Your task to perform on an android device: turn on improve location accuracy Image 0: 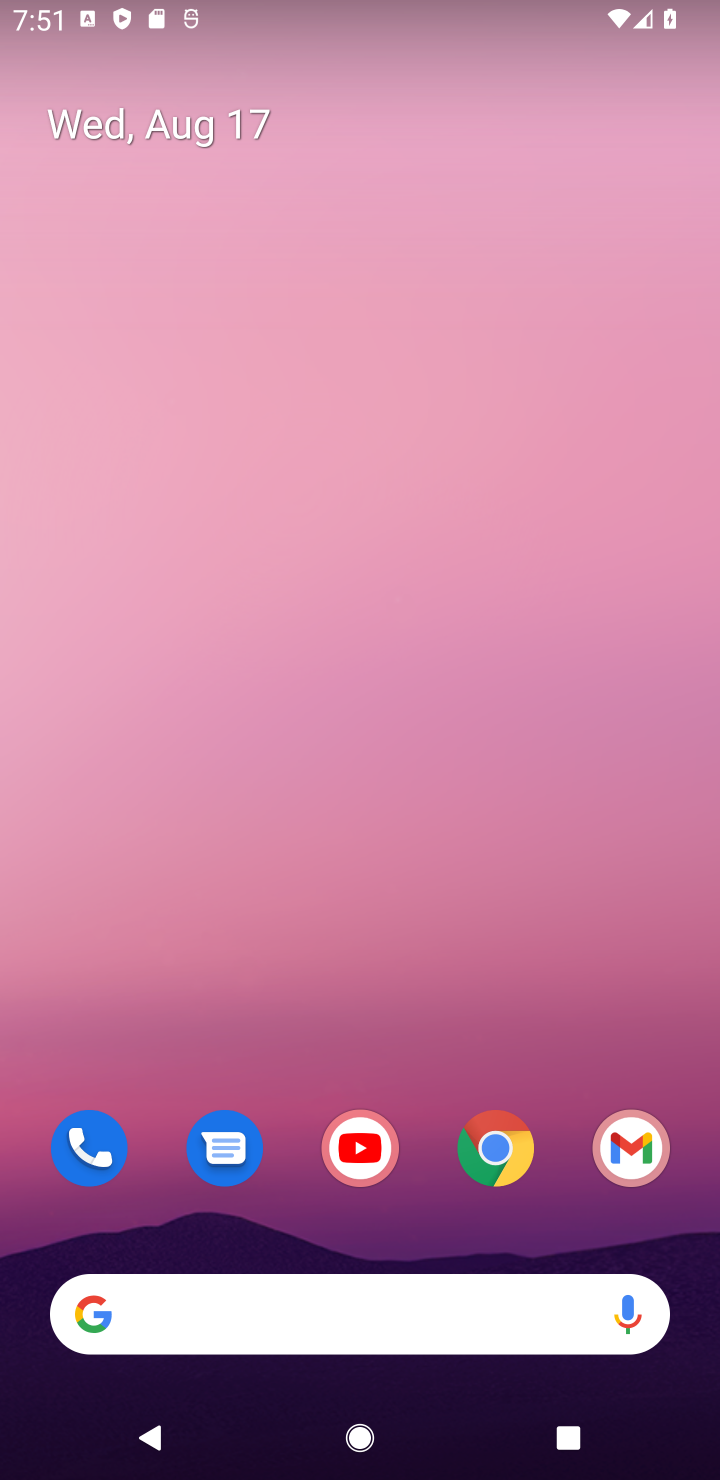
Step 0: drag from (540, 1034) to (532, 314)
Your task to perform on an android device: turn on improve location accuracy Image 1: 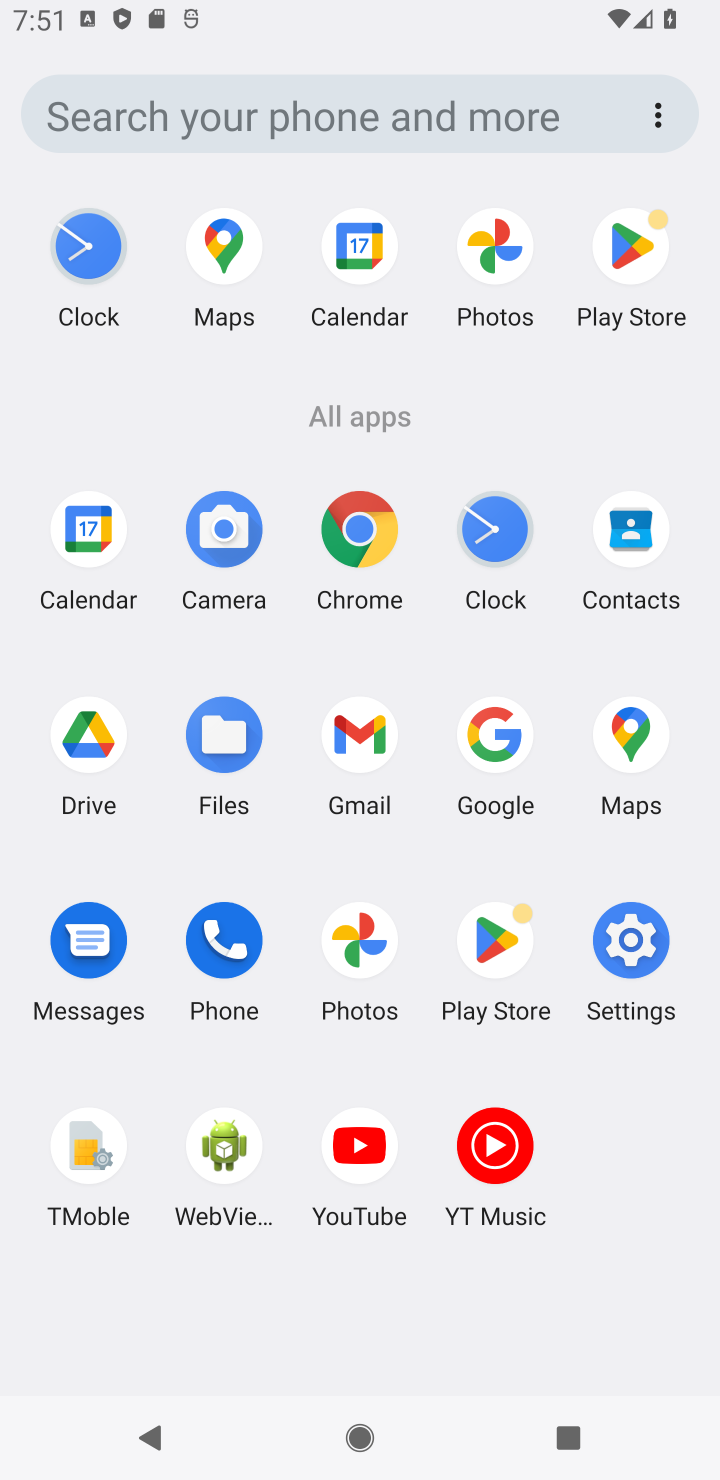
Step 1: click (629, 941)
Your task to perform on an android device: turn on improve location accuracy Image 2: 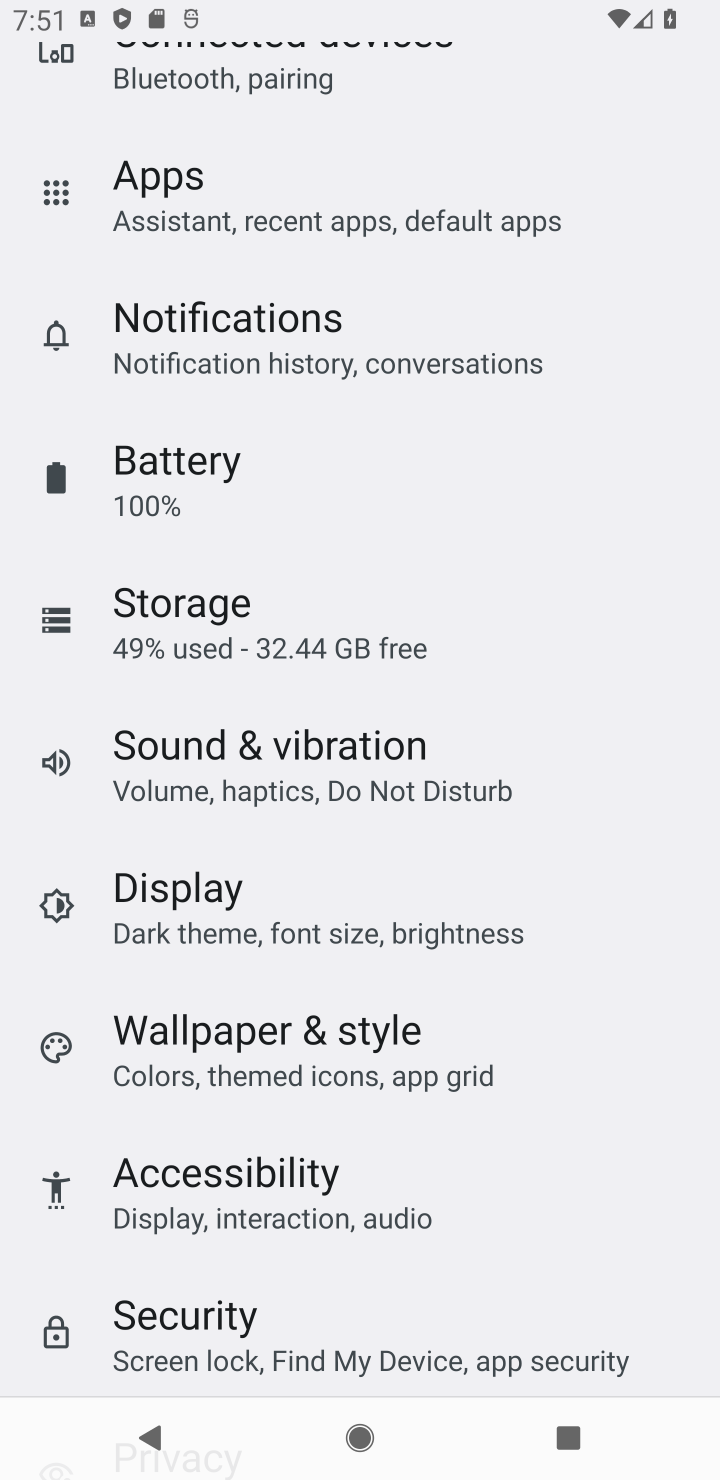
Step 2: drag from (581, 1202) to (548, 476)
Your task to perform on an android device: turn on improve location accuracy Image 3: 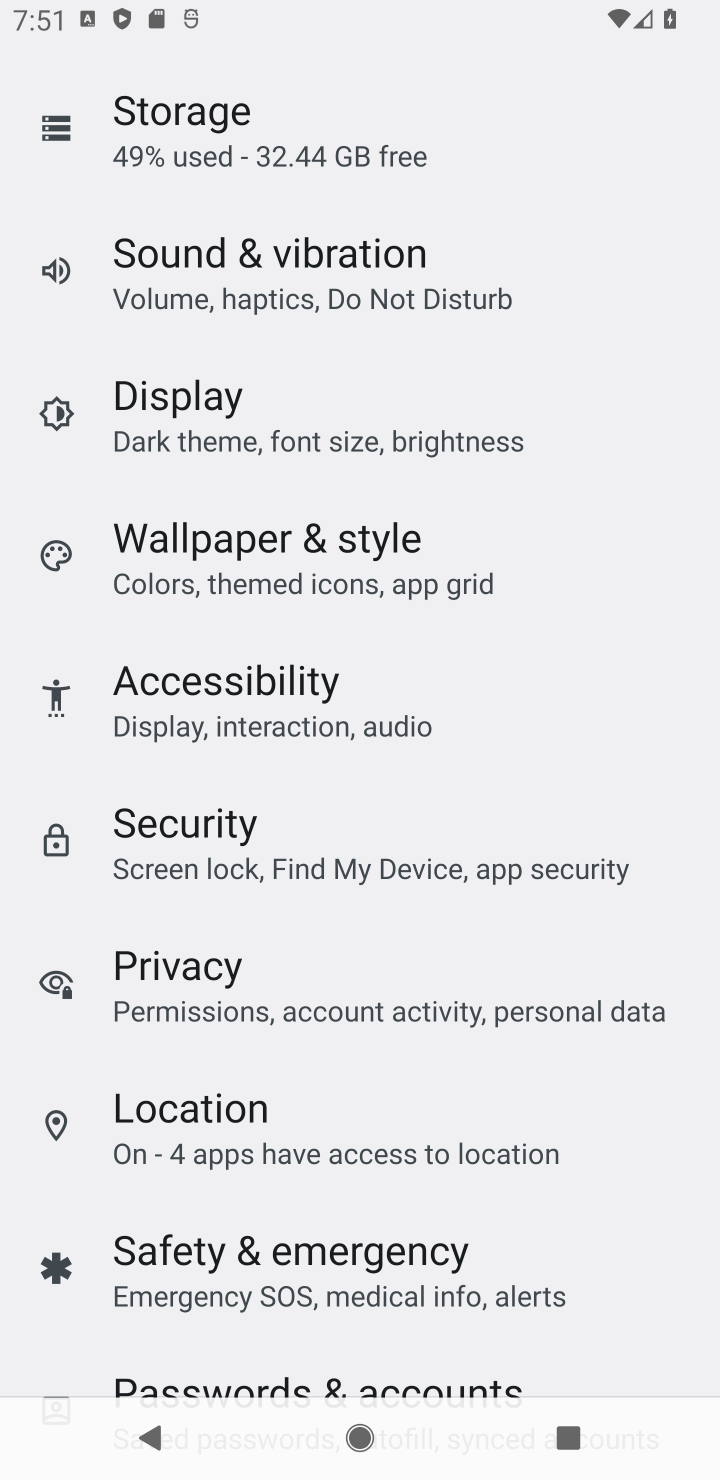
Step 3: click (179, 1116)
Your task to perform on an android device: turn on improve location accuracy Image 4: 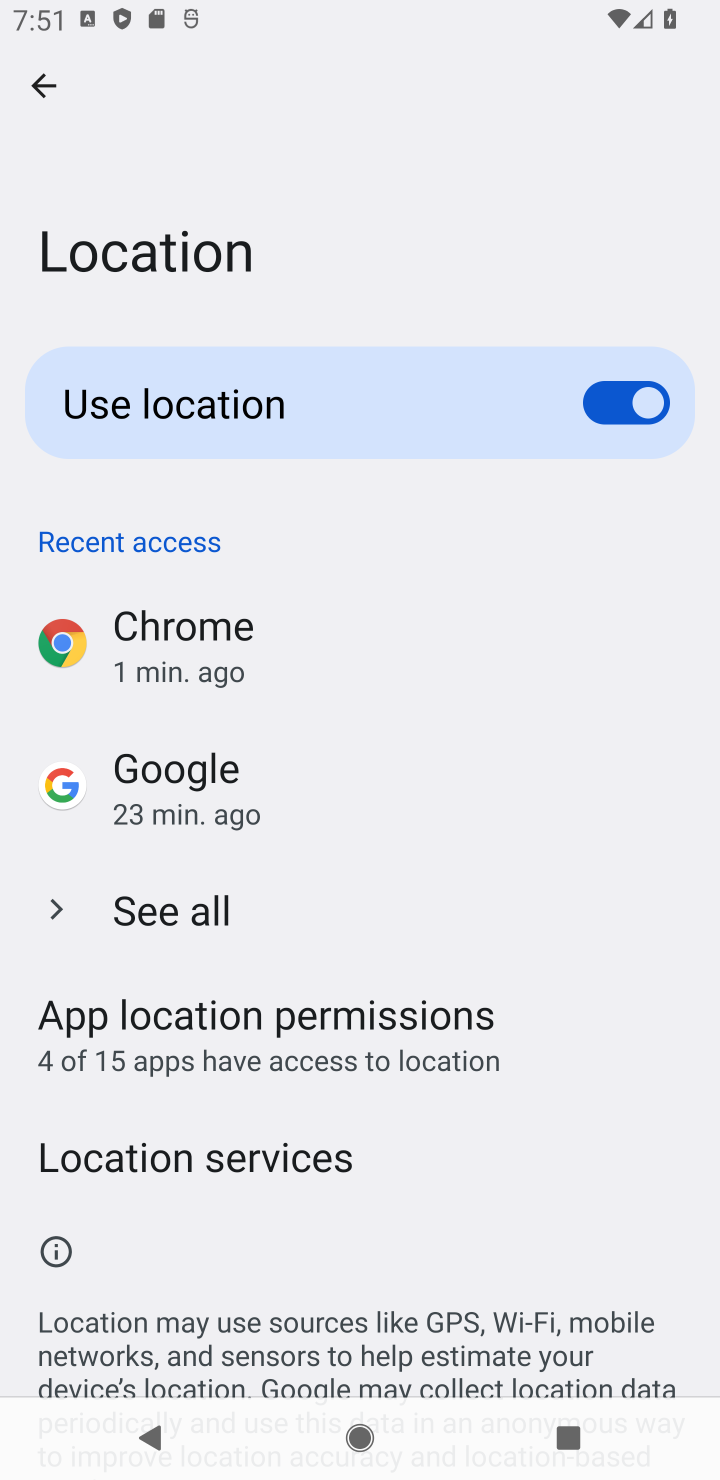
Step 4: drag from (510, 1174) to (500, 588)
Your task to perform on an android device: turn on improve location accuracy Image 5: 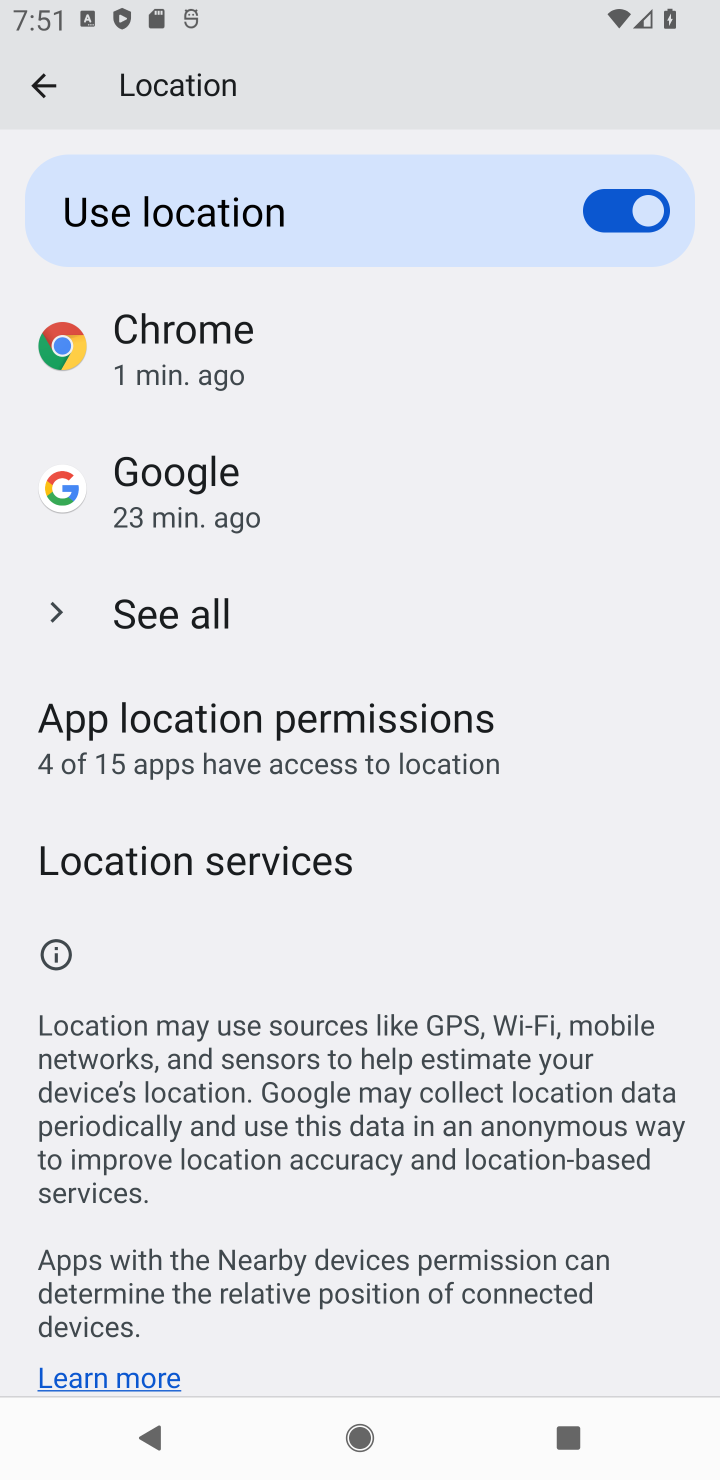
Step 5: click (248, 865)
Your task to perform on an android device: turn on improve location accuracy Image 6: 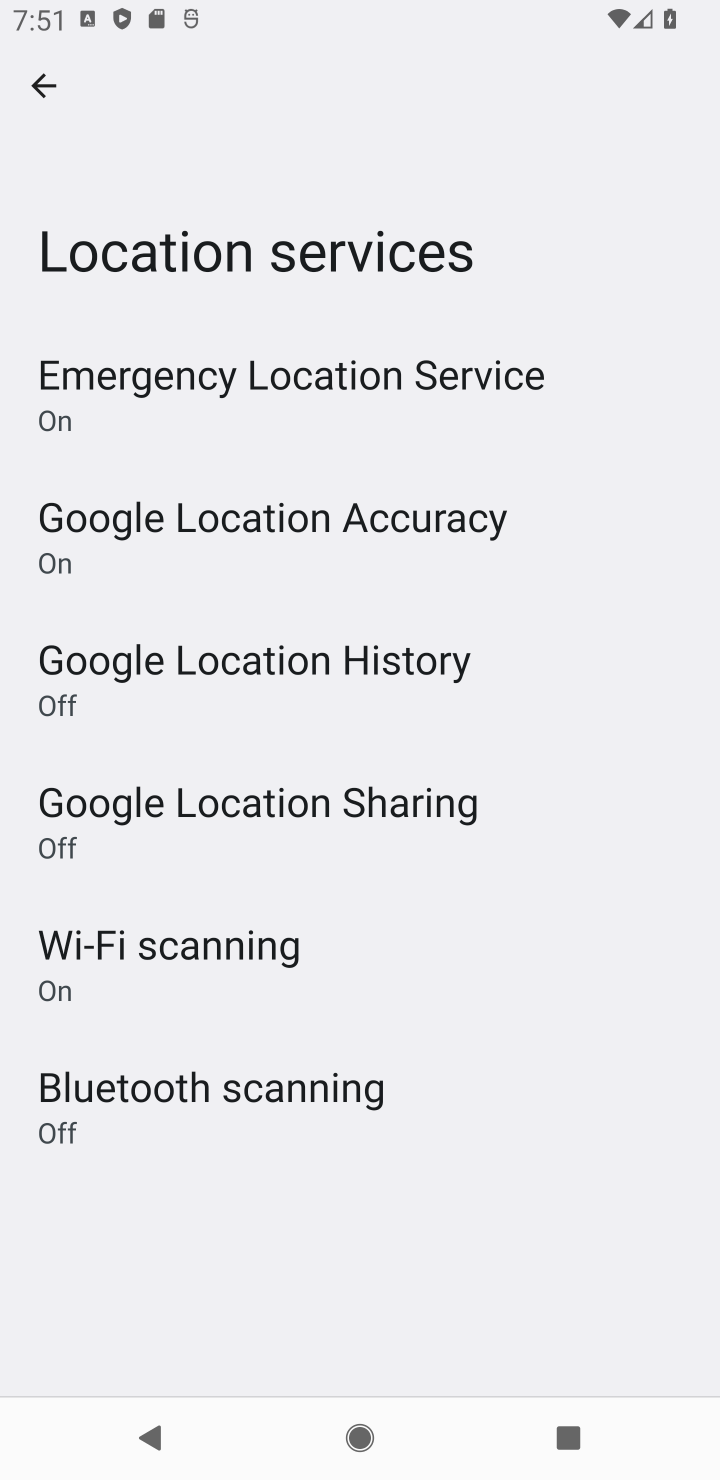
Step 6: click (315, 526)
Your task to perform on an android device: turn on improve location accuracy Image 7: 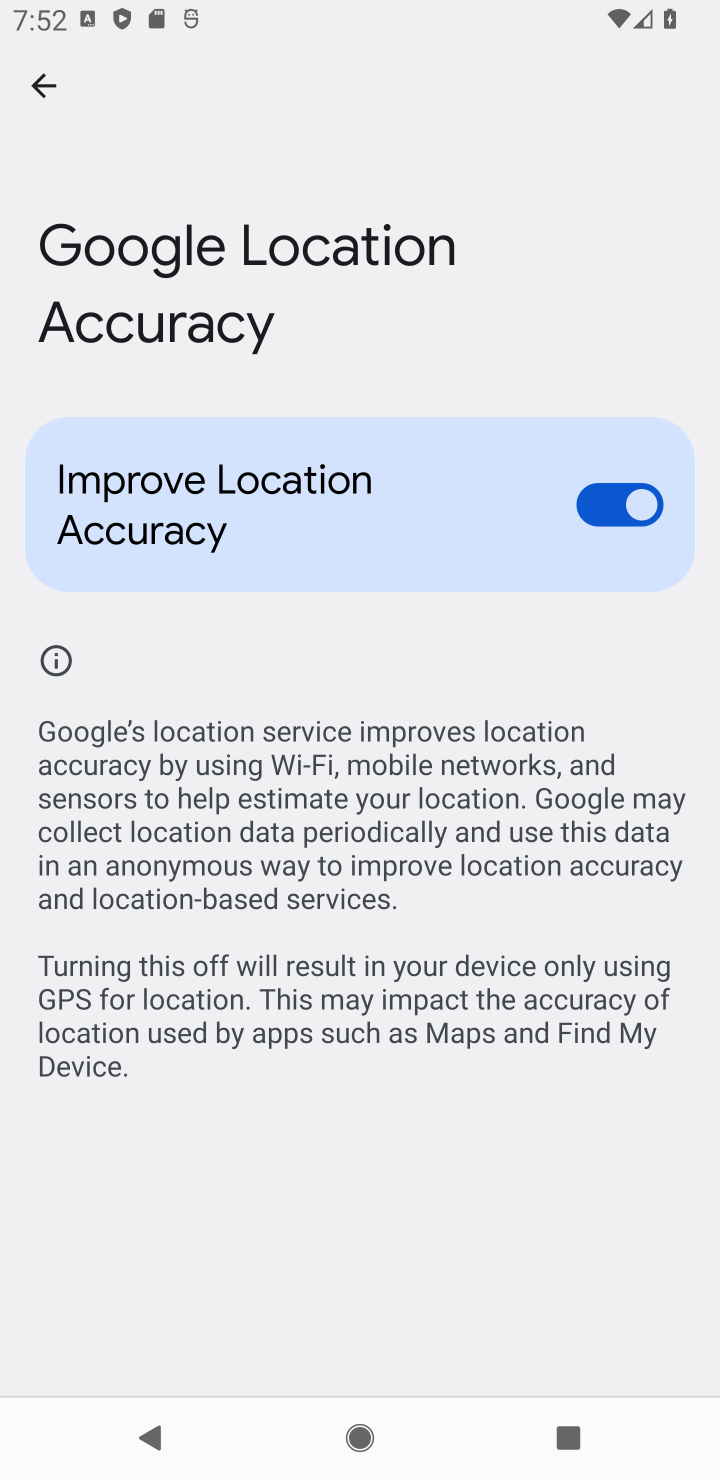
Step 7: task complete